Your task to perform on an android device: Turn on the flashlight Image 0: 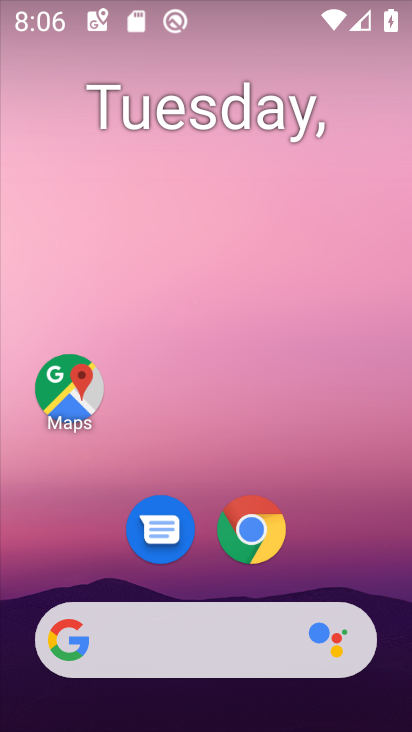
Step 0: drag from (208, 586) to (260, 77)
Your task to perform on an android device: Turn on the flashlight Image 1: 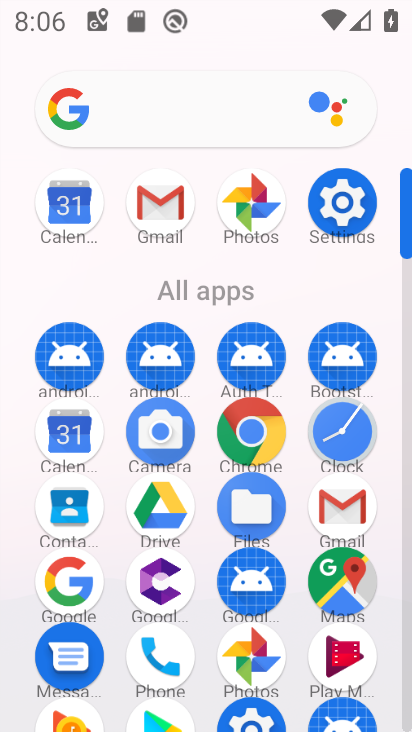
Step 1: click (330, 196)
Your task to perform on an android device: Turn on the flashlight Image 2: 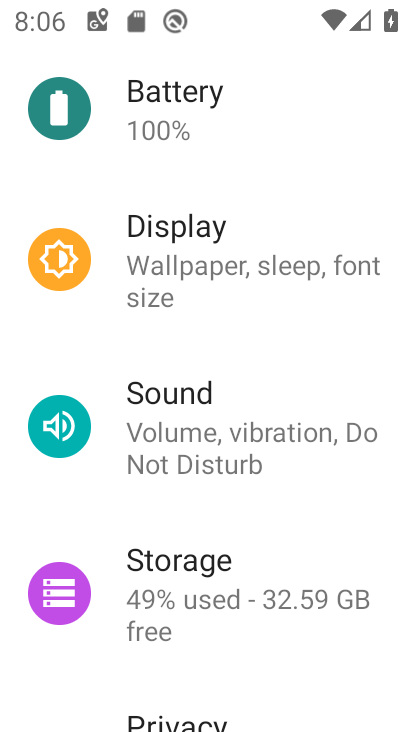
Step 2: drag from (269, 212) to (265, 698)
Your task to perform on an android device: Turn on the flashlight Image 3: 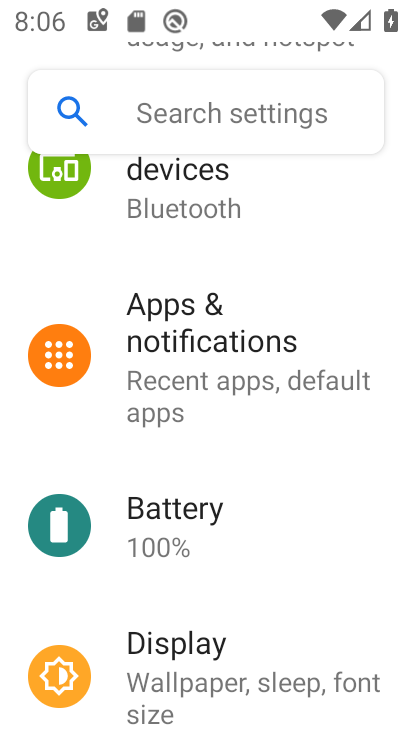
Step 3: click (156, 116)
Your task to perform on an android device: Turn on the flashlight Image 4: 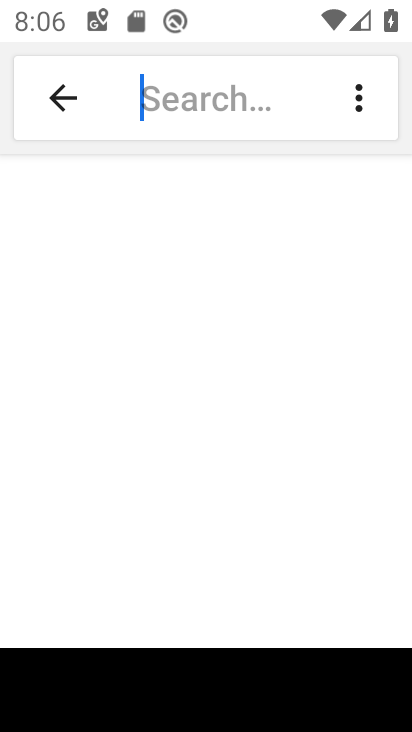
Step 4: type "flashlight"
Your task to perform on an android device: Turn on the flashlight Image 5: 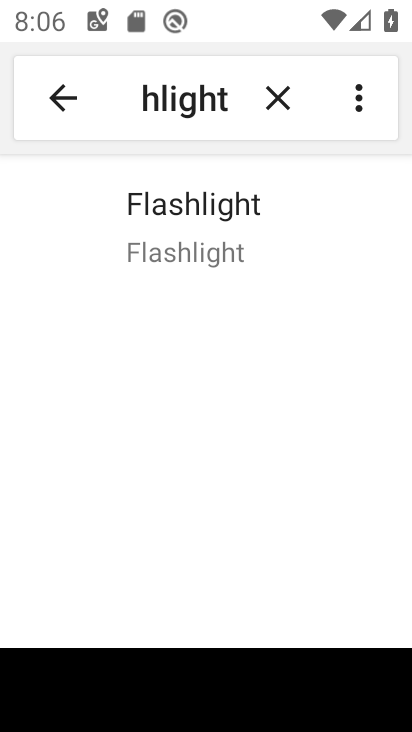
Step 5: click (197, 226)
Your task to perform on an android device: Turn on the flashlight Image 6: 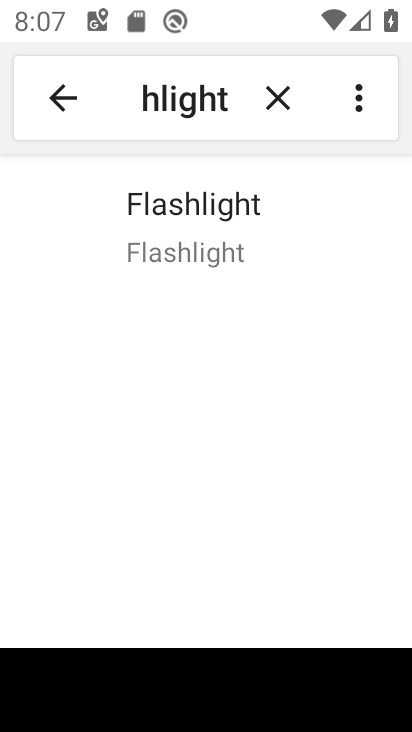
Step 6: click (237, 237)
Your task to perform on an android device: Turn on the flashlight Image 7: 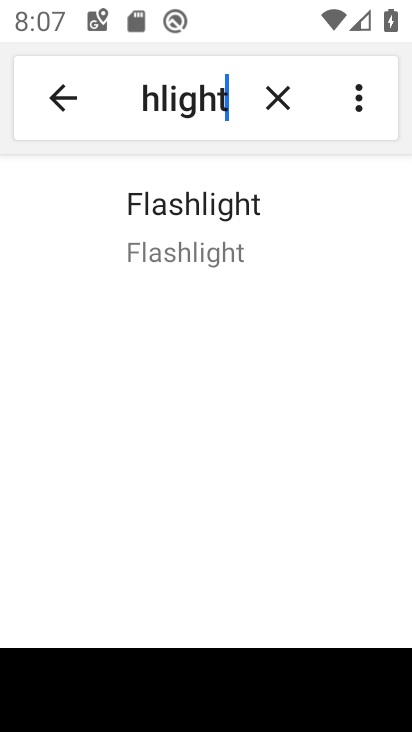
Step 7: task complete